Your task to perform on an android device: turn vacation reply on in the gmail app Image 0: 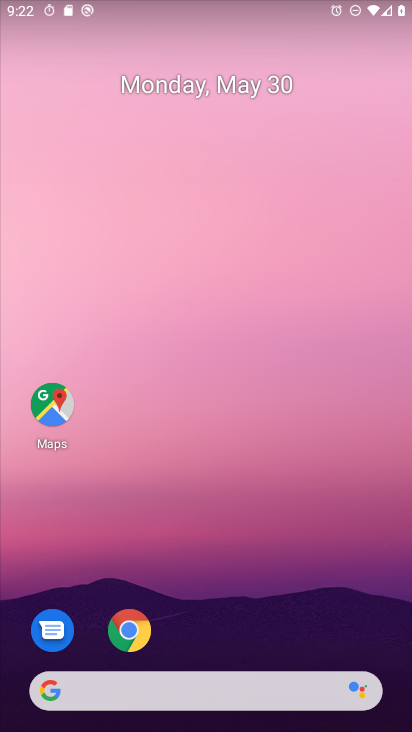
Step 0: click (332, 496)
Your task to perform on an android device: turn vacation reply on in the gmail app Image 1: 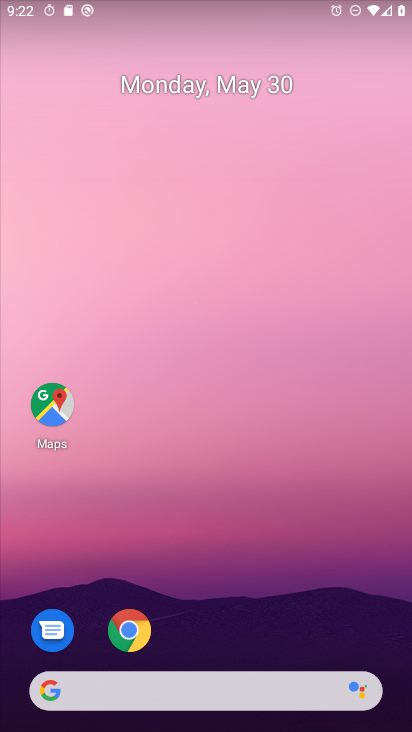
Step 1: drag from (277, 194) to (225, 60)
Your task to perform on an android device: turn vacation reply on in the gmail app Image 2: 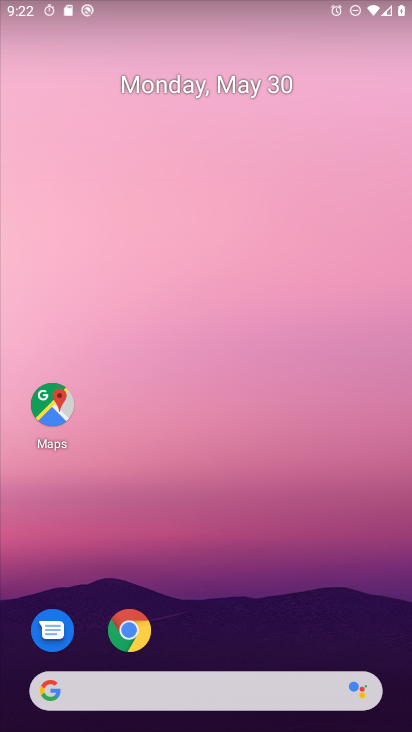
Step 2: drag from (361, 617) to (300, 88)
Your task to perform on an android device: turn vacation reply on in the gmail app Image 3: 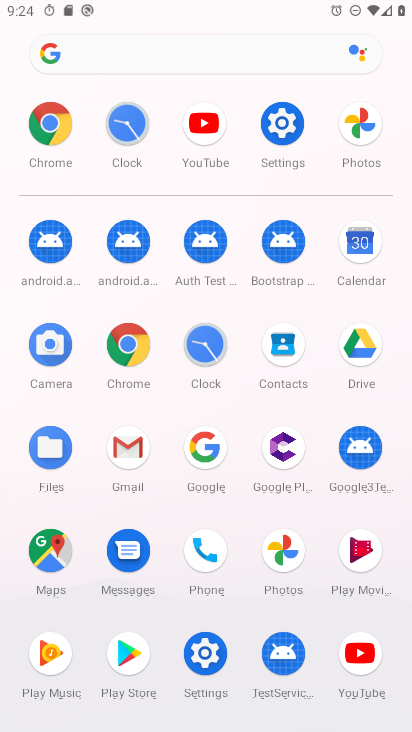
Step 3: drag from (225, 675) to (249, 23)
Your task to perform on an android device: turn vacation reply on in the gmail app Image 4: 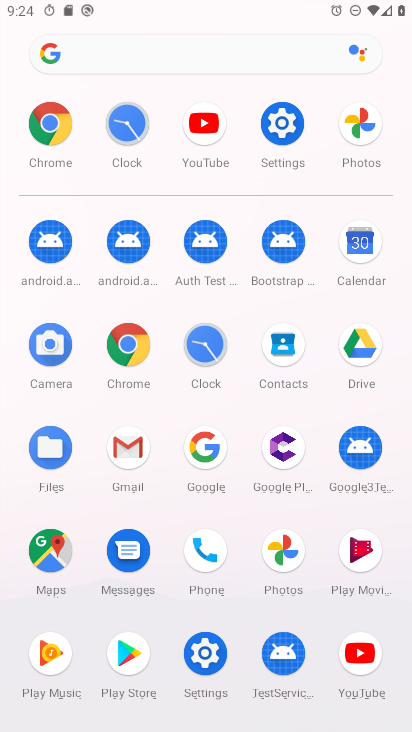
Step 4: click (122, 428)
Your task to perform on an android device: turn vacation reply on in the gmail app Image 5: 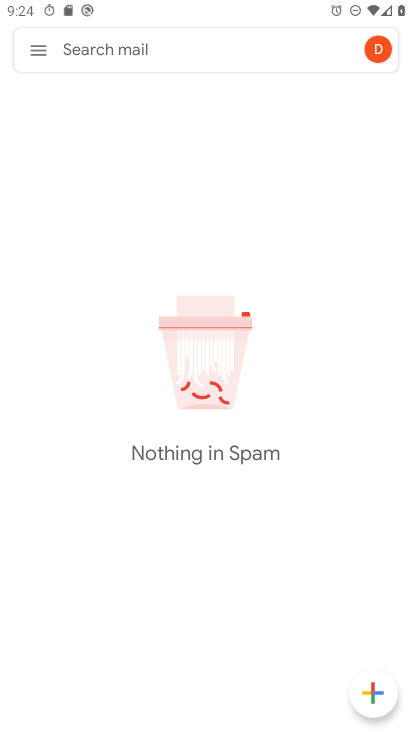
Step 5: click (40, 55)
Your task to perform on an android device: turn vacation reply on in the gmail app Image 6: 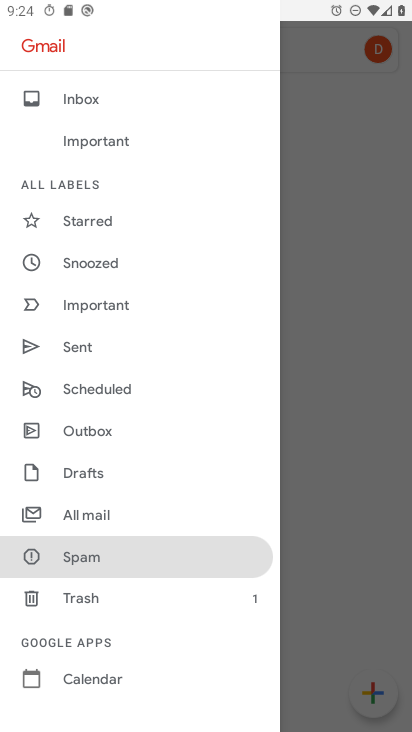
Step 6: click (123, 597)
Your task to perform on an android device: turn vacation reply on in the gmail app Image 7: 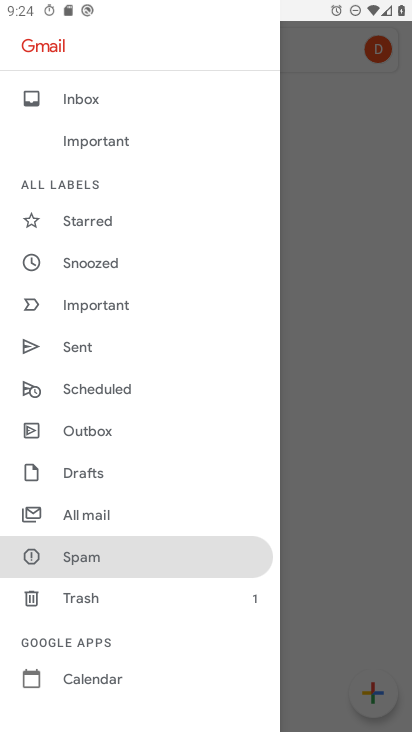
Step 7: drag from (150, 320) to (145, 43)
Your task to perform on an android device: turn vacation reply on in the gmail app Image 8: 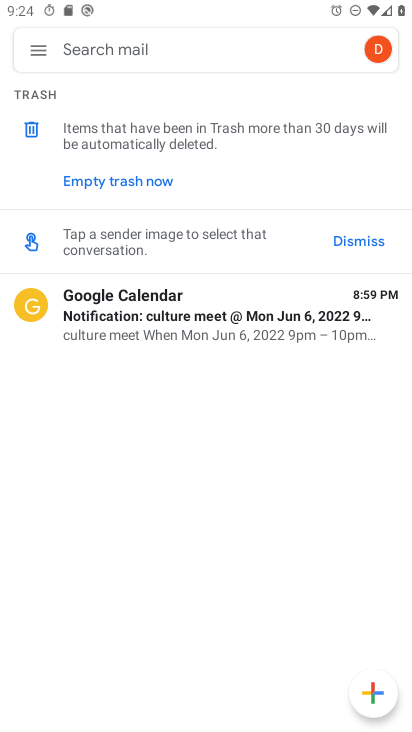
Step 8: click (45, 48)
Your task to perform on an android device: turn vacation reply on in the gmail app Image 9: 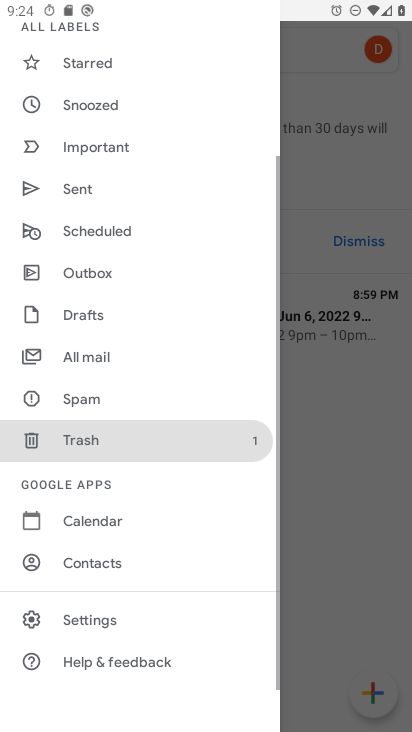
Step 9: drag from (97, 652) to (343, 587)
Your task to perform on an android device: turn vacation reply on in the gmail app Image 10: 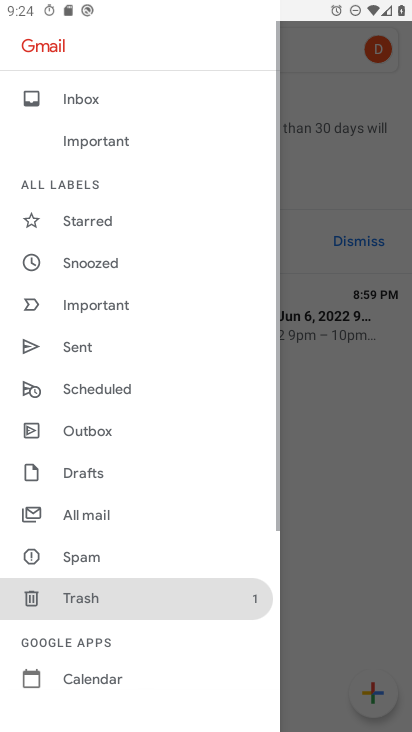
Step 10: click (125, 620)
Your task to perform on an android device: turn vacation reply on in the gmail app Image 11: 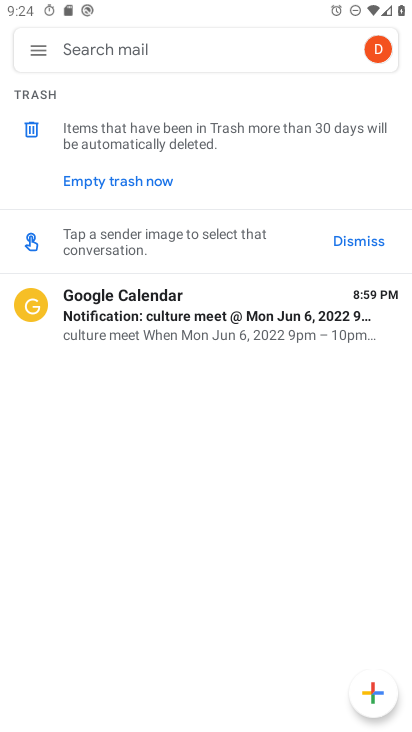
Step 11: click (31, 37)
Your task to perform on an android device: turn vacation reply on in the gmail app Image 12: 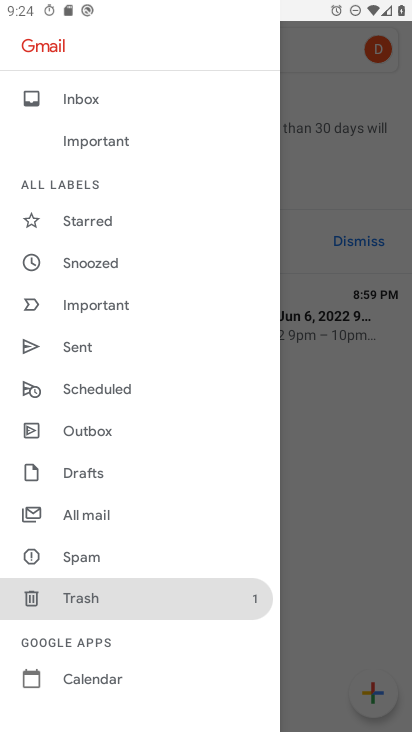
Step 12: drag from (119, 639) to (172, 72)
Your task to perform on an android device: turn vacation reply on in the gmail app Image 13: 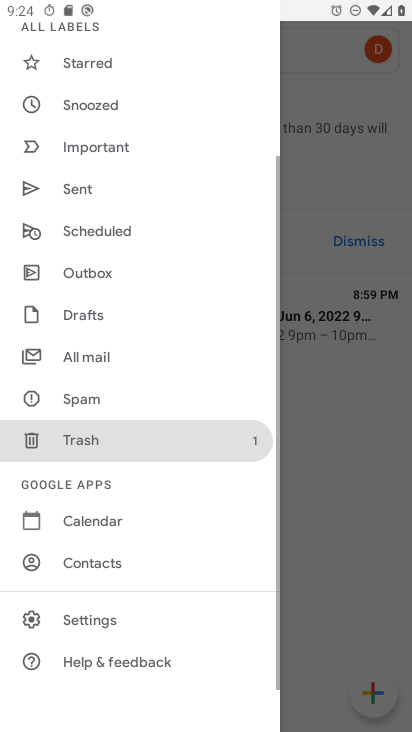
Step 13: click (85, 621)
Your task to perform on an android device: turn vacation reply on in the gmail app Image 14: 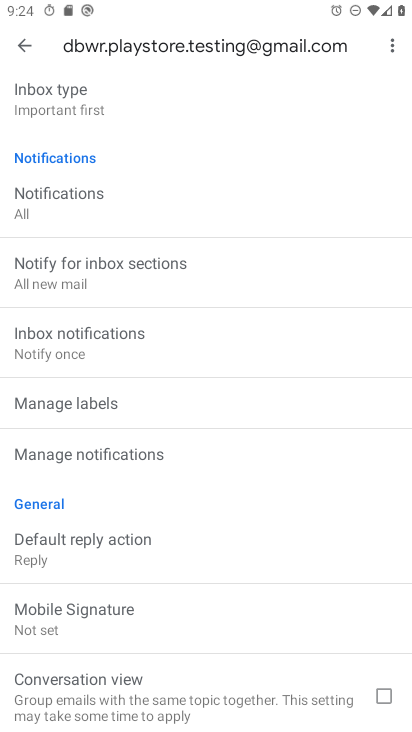
Step 14: drag from (195, 663) to (211, 43)
Your task to perform on an android device: turn vacation reply on in the gmail app Image 15: 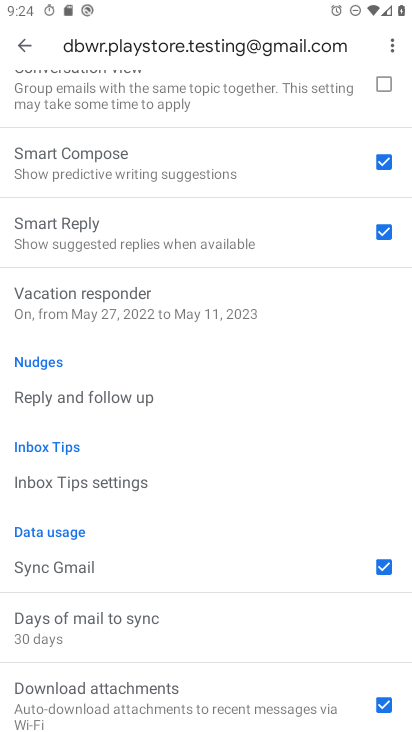
Step 15: click (135, 315)
Your task to perform on an android device: turn vacation reply on in the gmail app Image 16: 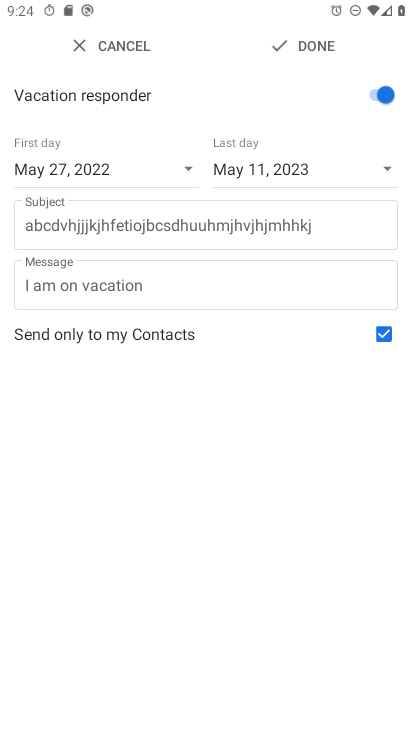
Step 16: task complete